Your task to perform on an android device: Show the shopping cart on costco. Search for panasonic triple a on costco, select the first entry, and add it to the cart. Image 0: 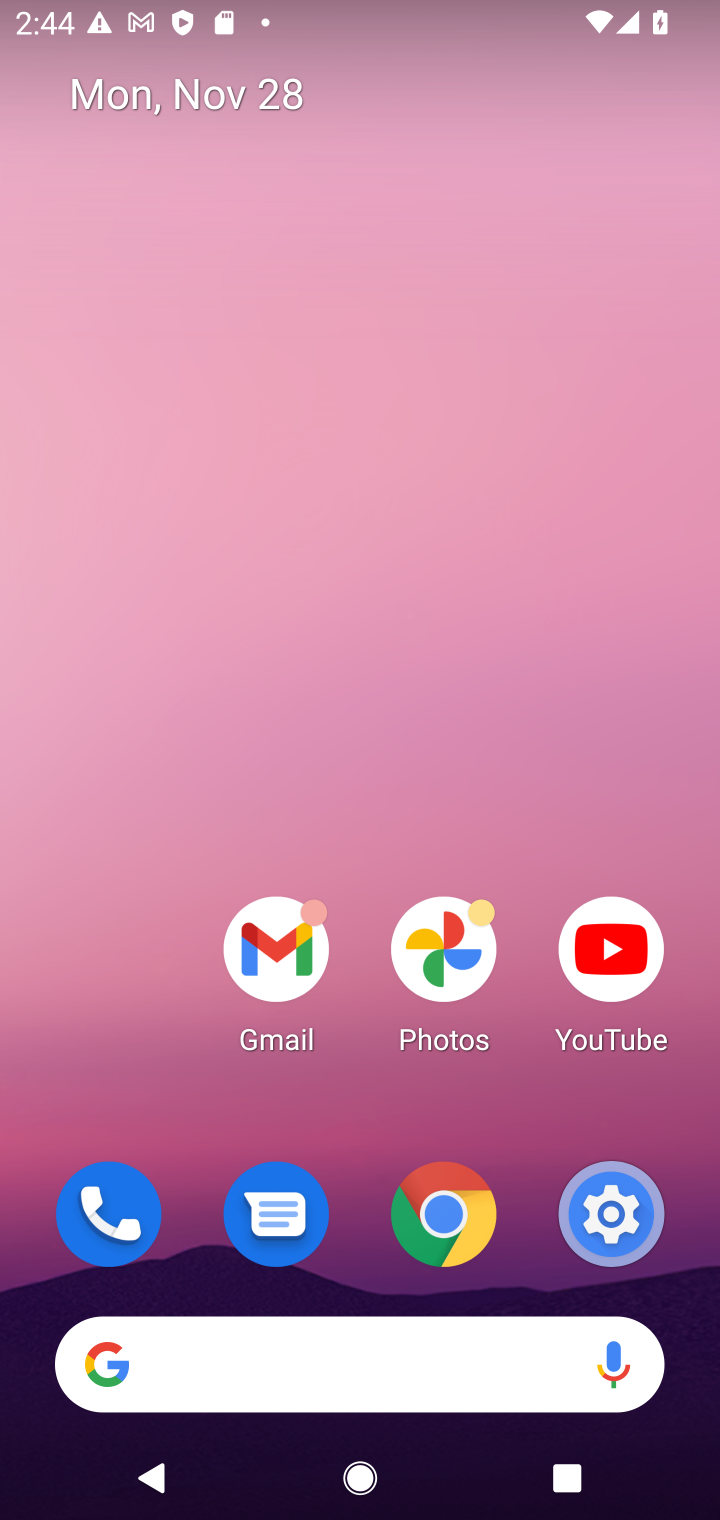
Step 0: click (322, 1346)
Your task to perform on an android device: Show the shopping cart on costco. Search for panasonic triple a on costco, select the first entry, and add it to the cart. Image 1: 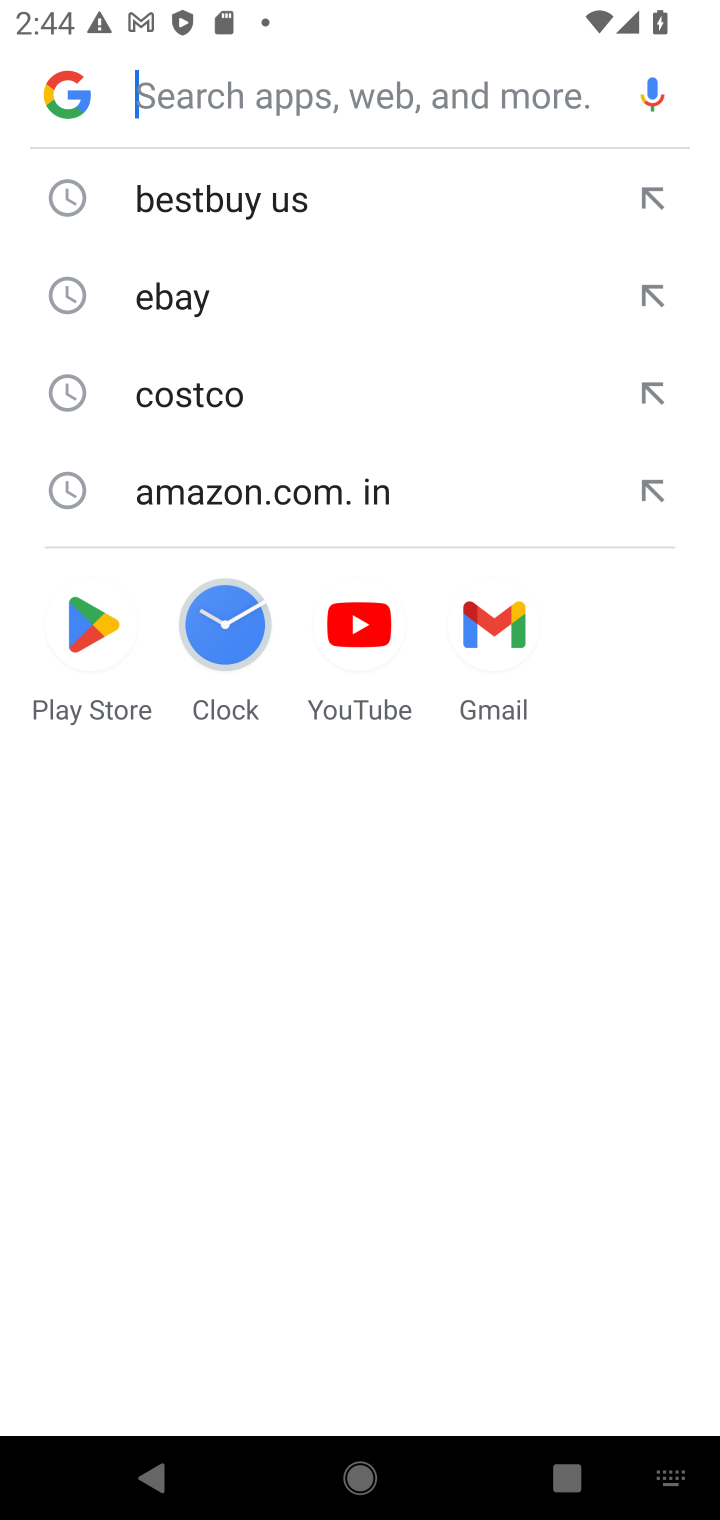
Step 1: type "costco"
Your task to perform on an android device: Show the shopping cart on costco. Search for panasonic triple a on costco, select the first entry, and add it to the cart. Image 2: 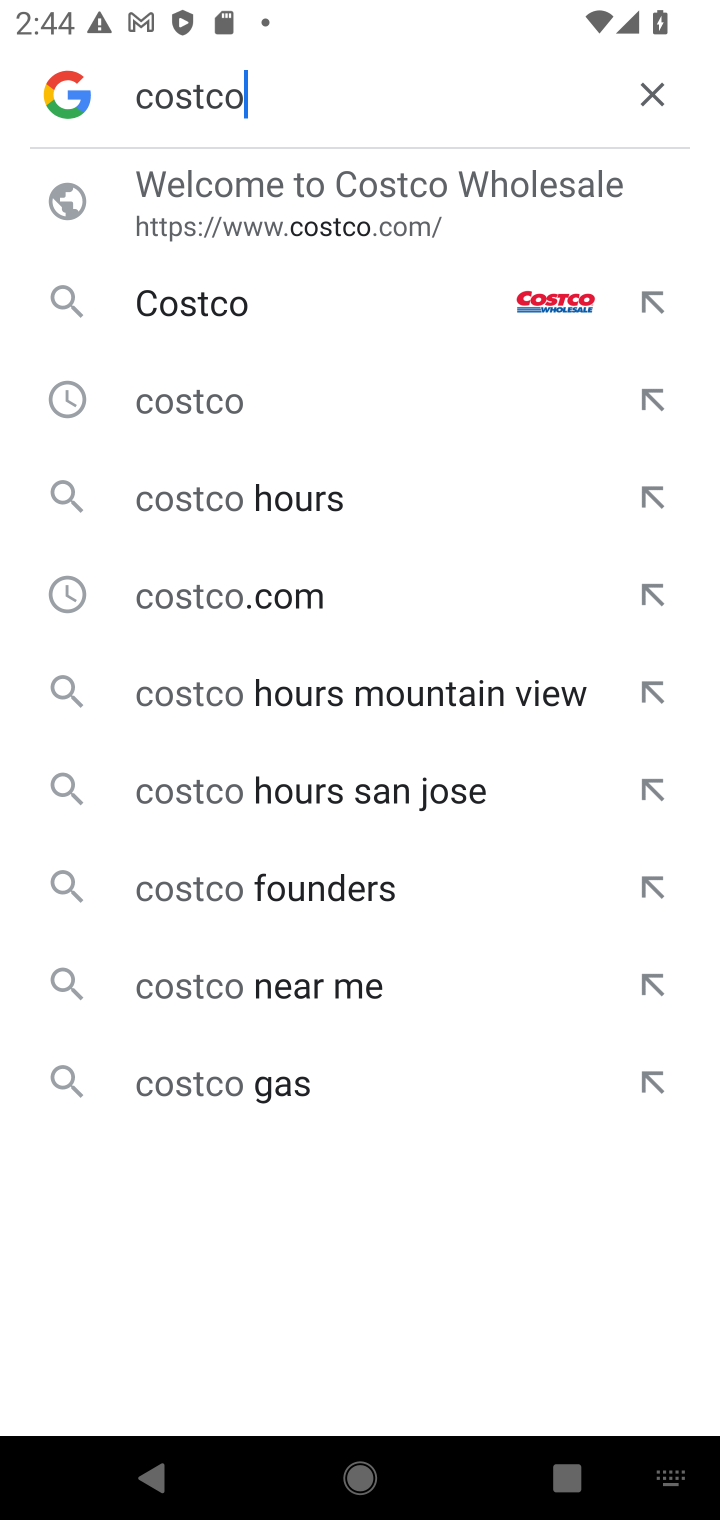
Step 2: click (329, 248)
Your task to perform on an android device: Show the shopping cart on costco. Search for panasonic triple a on costco, select the first entry, and add it to the cart. Image 3: 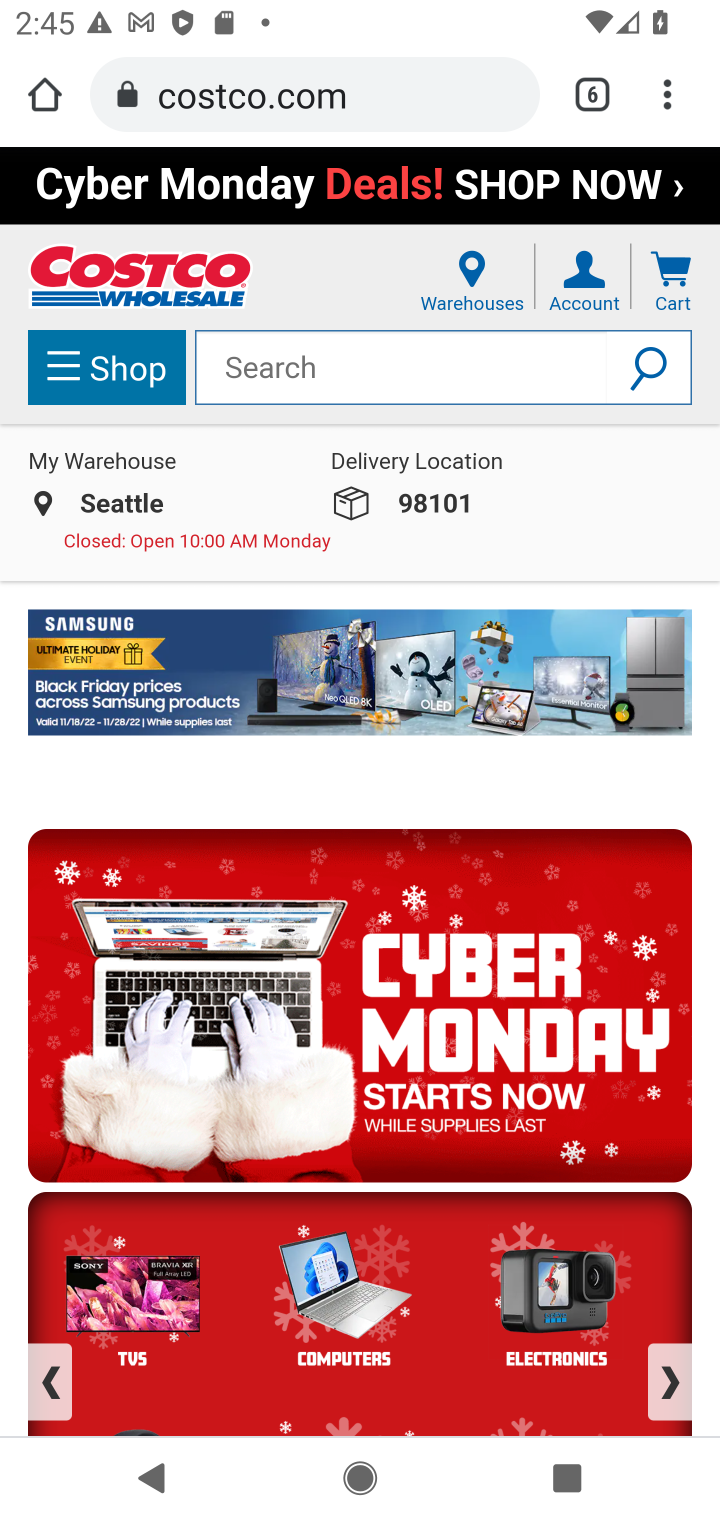
Step 3: task complete